Your task to perform on an android device: visit the assistant section in the google photos Image 0: 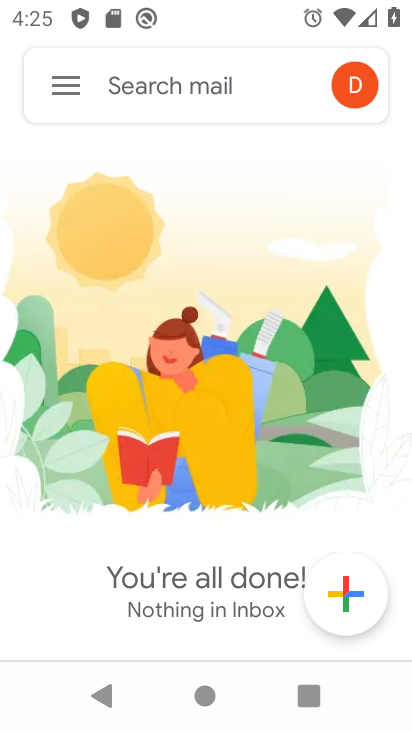
Step 0: press home button
Your task to perform on an android device: visit the assistant section in the google photos Image 1: 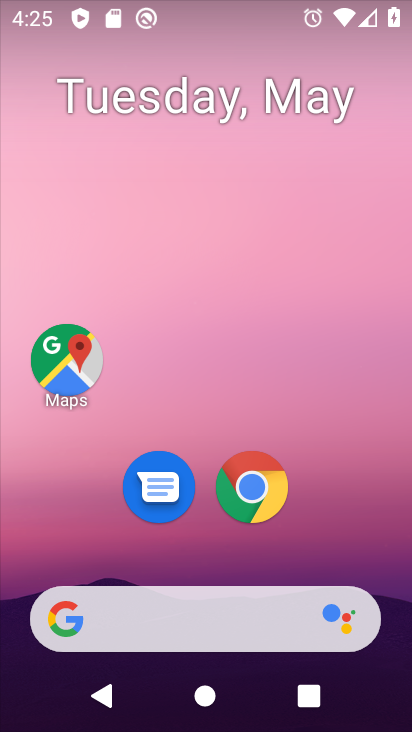
Step 1: drag from (321, 555) to (362, 49)
Your task to perform on an android device: visit the assistant section in the google photos Image 2: 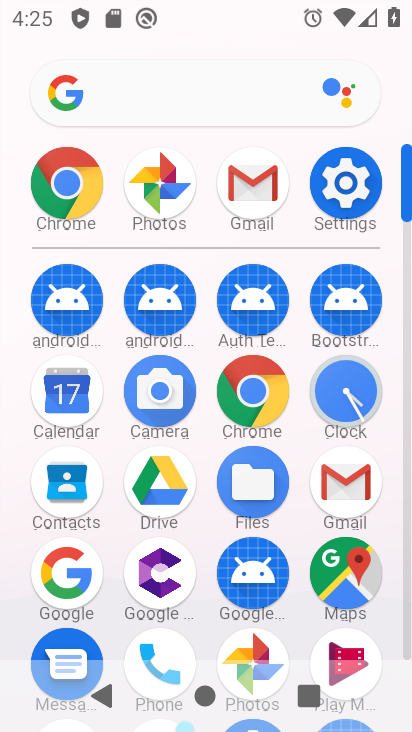
Step 2: click (256, 650)
Your task to perform on an android device: visit the assistant section in the google photos Image 3: 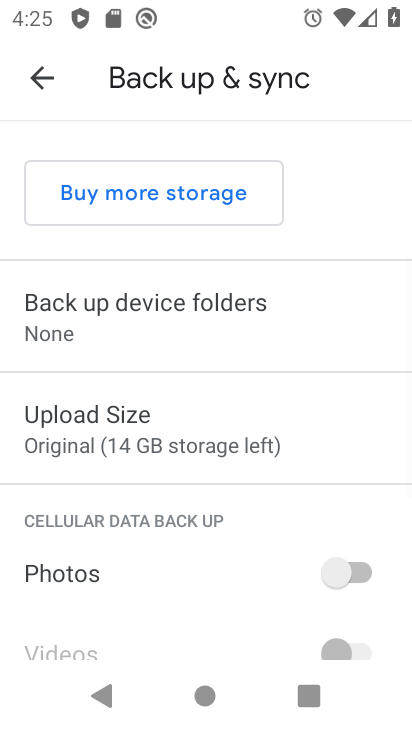
Step 3: click (46, 86)
Your task to perform on an android device: visit the assistant section in the google photos Image 4: 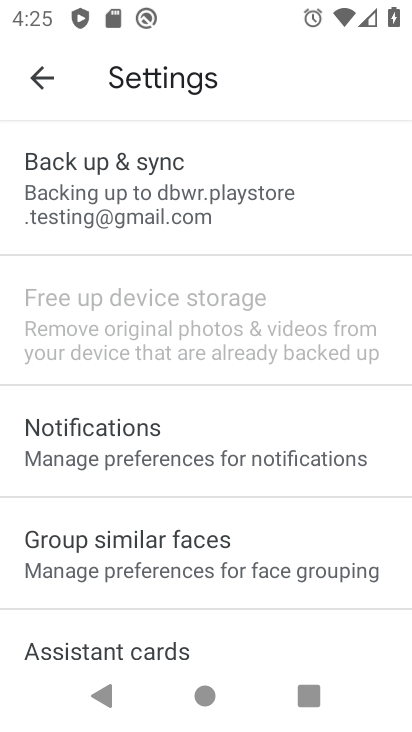
Step 4: click (24, 80)
Your task to perform on an android device: visit the assistant section in the google photos Image 5: 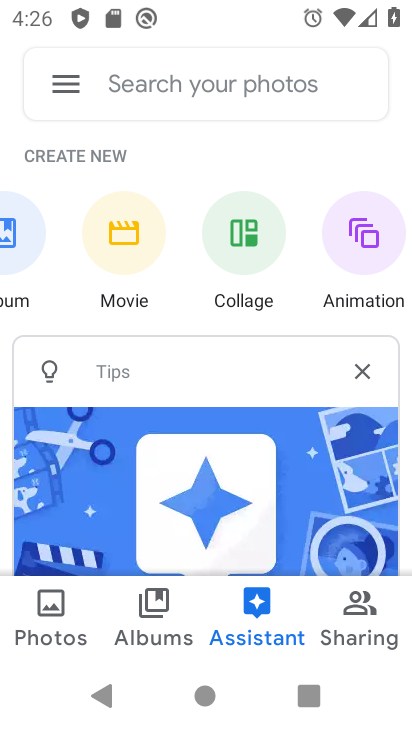
Step 5: task complete